Your task to perform on an android device: open a new tab in the chrome app Image 0: 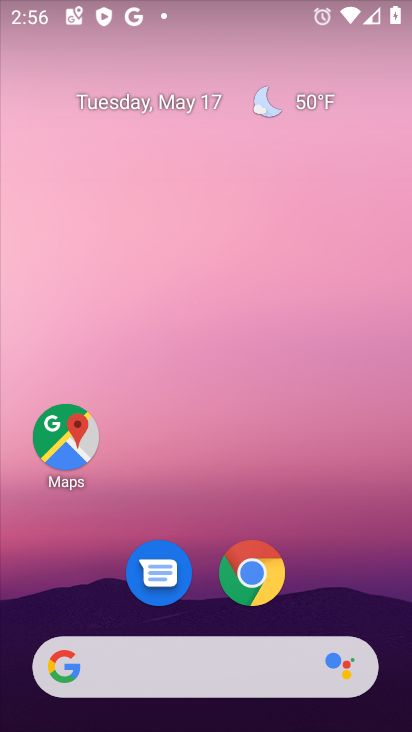
Step 0: click (247, 583)
Your task to perform on an android device: open a new tab in the chrome app Image 1: 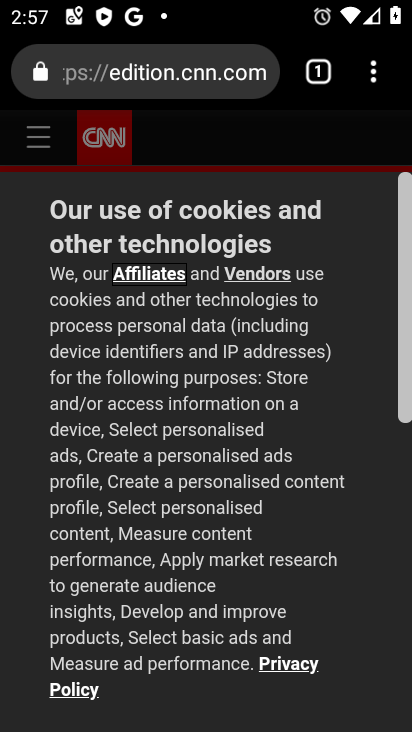
Step 1: task complete